Your task to perform on an android device: change notification settings in the gmail app Image 0: 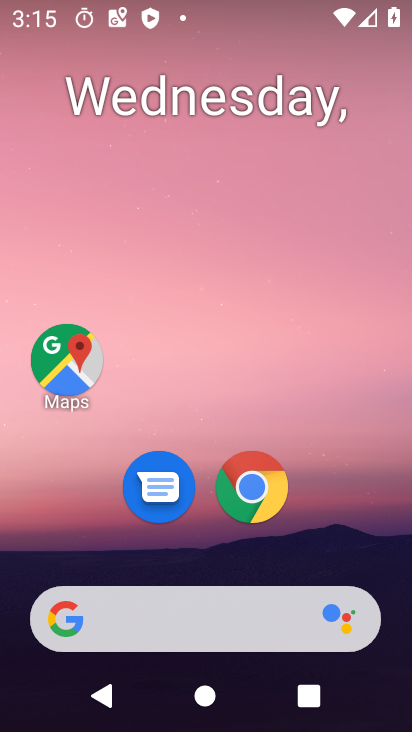
Step 0: drag from (209, 576) to (221, 296)
Your task to perform on an android device: change notification settings in the gmail app Image 1: 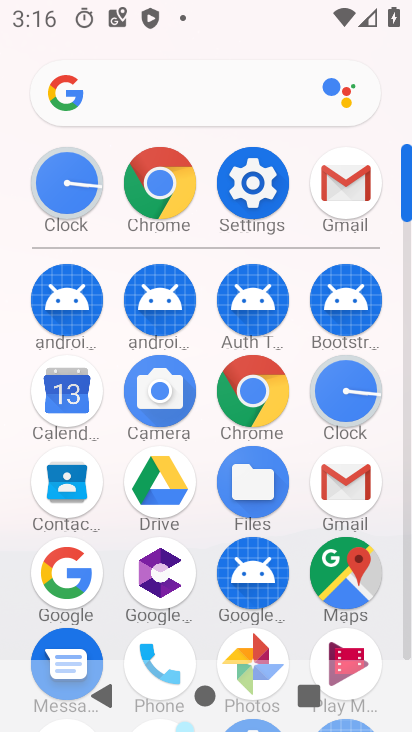
Step 1: click (331, 498)
Your task to perform on an android device: change notification settings in the gmail app Image 2: 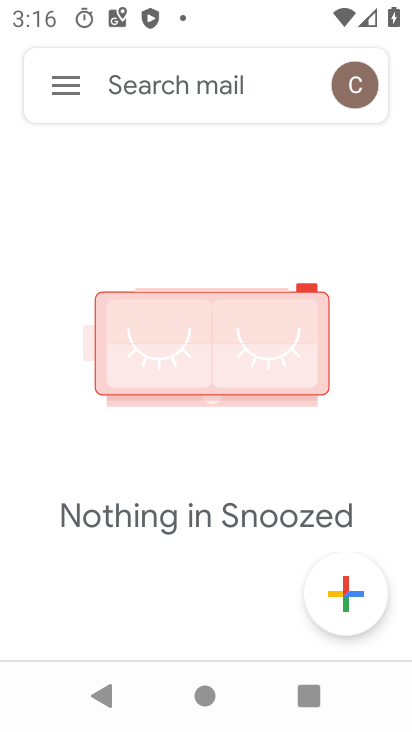
Step 2: click (47, 97)
Your task to perform on an android device: change notification settings in the gmail app Image 3: 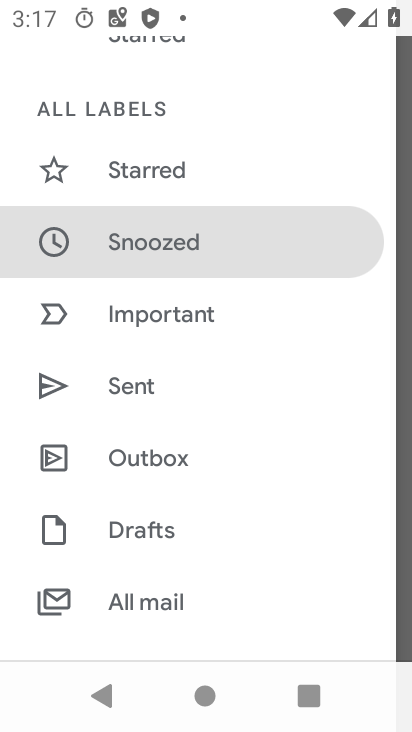
Step 3: drag from (152, 529) to (163, 143)
Your task to perform on an android device: change notification settings in the gmail app Image 4: 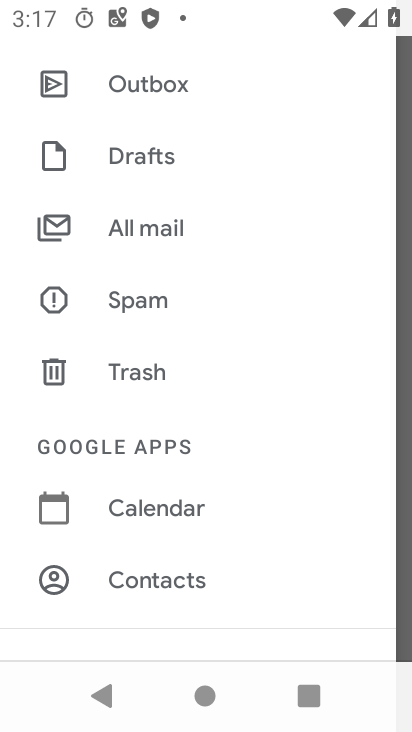
Step 4: drag from (155, 522) to (169, 182)
Your task to perform on an android device: change notification settings in the gmail app Image 5: 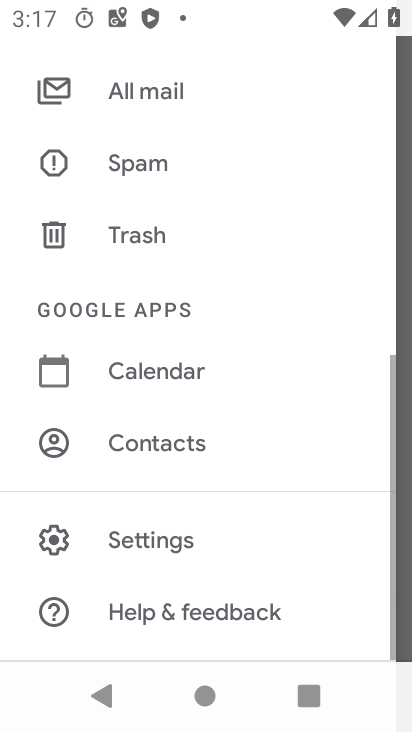
Step 5: click (150, 532)
Your task to perform on an android device: change notification settings in the gmail app Image 6: 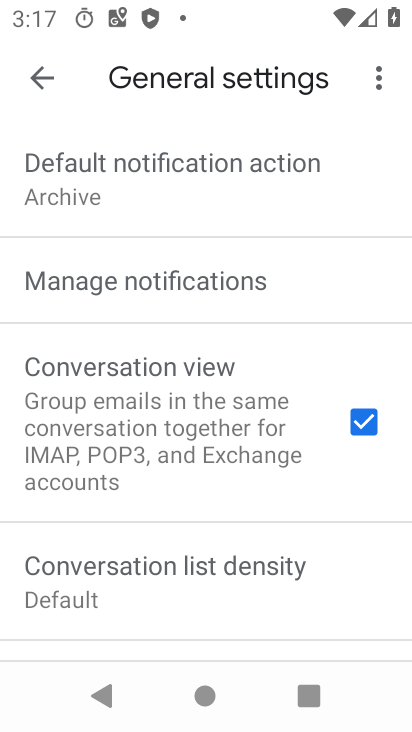
Step 6: click (183, 292)
Your task to perform on an android device: change notification settings in the gmail app Image 7: 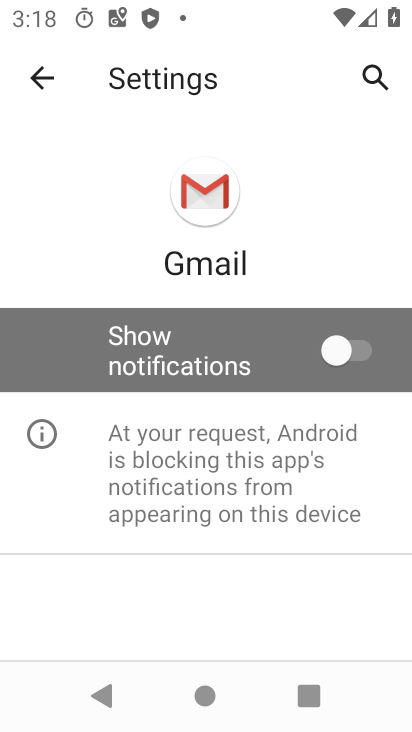
Step 7: click (340, 361)
Your task to perform on an android device: change notification settings in the gmail app Image 8: 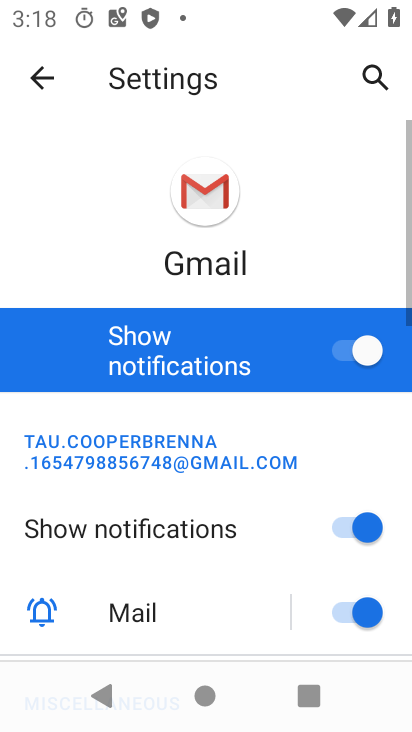
Step 8: task complete